Your task to perform on an android device: Go to ESPN.com Image 0: 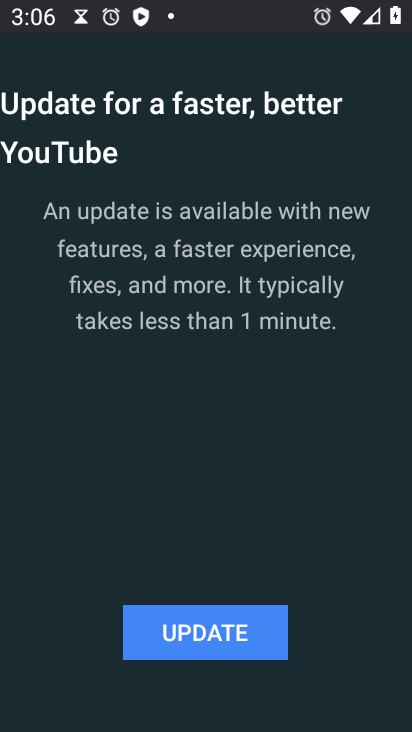
Step 0: press back button
Your task to perform on an android device: Go to ESPN.com Image 1: 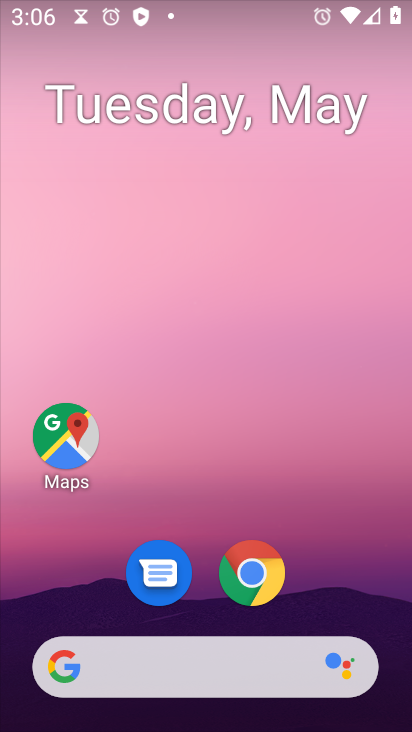
Step 1: drag from (300, 559) to (287, 7)
Your task to perform on an android device: Go to ESPN.com Image 2: 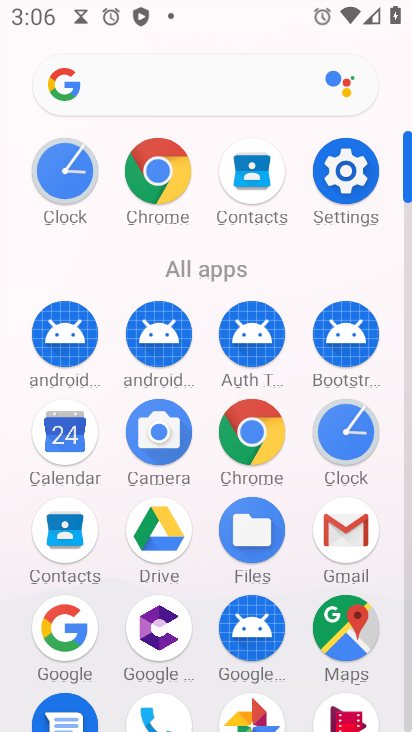
Step 2: click (159, 169)
Your task to perform on an android device: Go to ESPN.com Image 3: 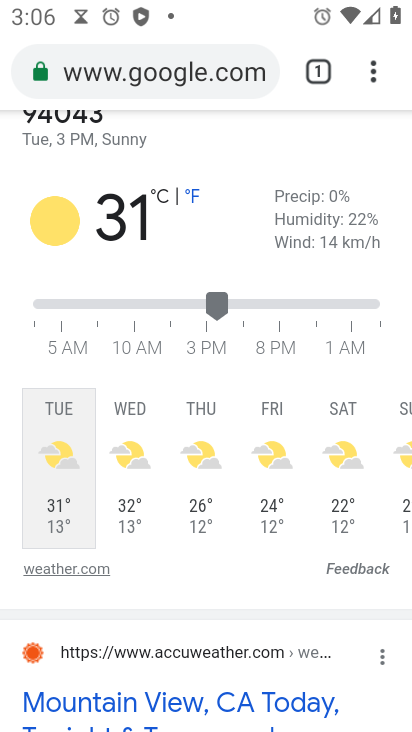
Step 3: drag from (223, 89) to (256, 454)
Your task to perform on an android device: Go to ESPN.com Image 4: 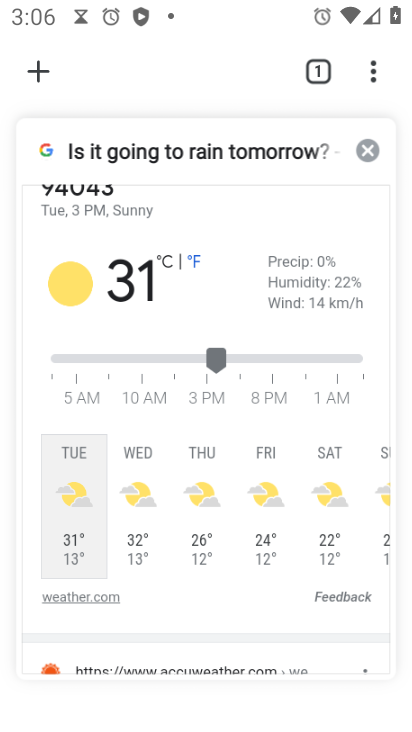
Step 4: click (165, 219)
Your task to perform on an android device: Go to ESPN.com Image 5: 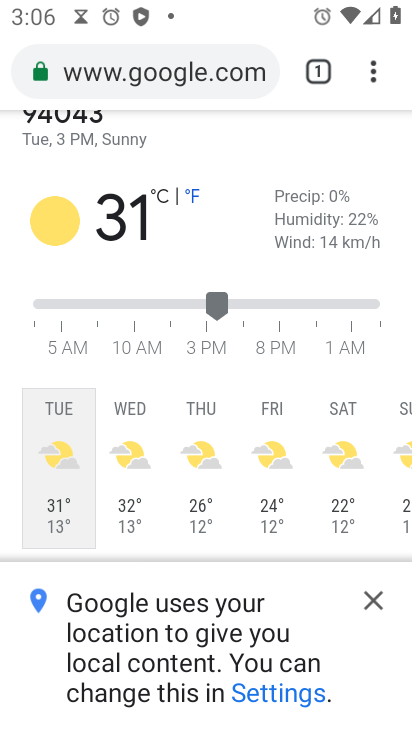
Step 5: click (147, 67)
Your task to perform on an android device: Go to ESPN.com Image 6: 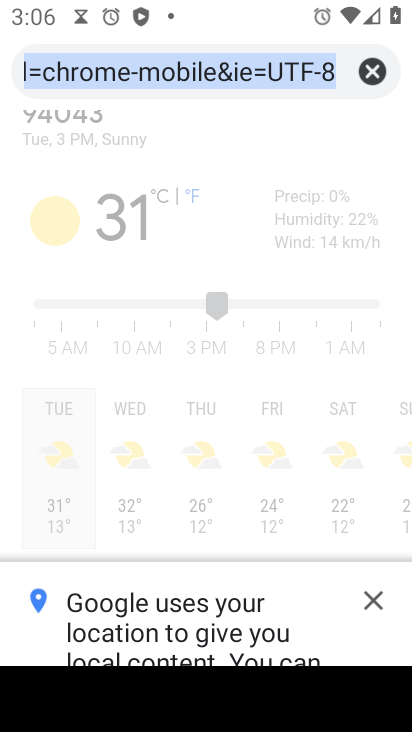
Step 6: click (379, 70)
Your task to perform on an android device: Go to ESPN.com Image 7: 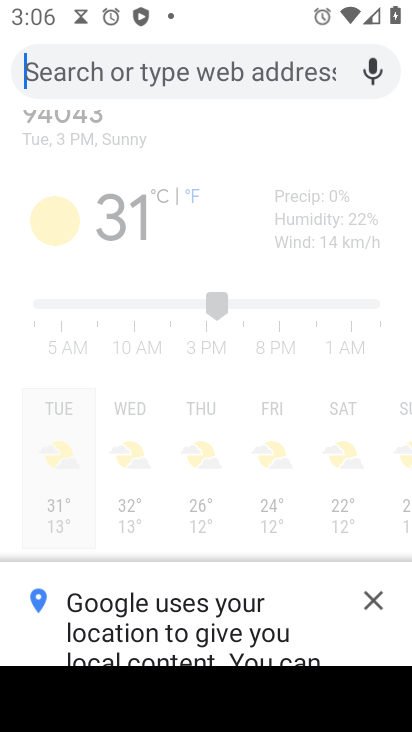
Step 7: type "ESPN.com"
Your task to perform on an android device: Go to ESPN.com Image 8: 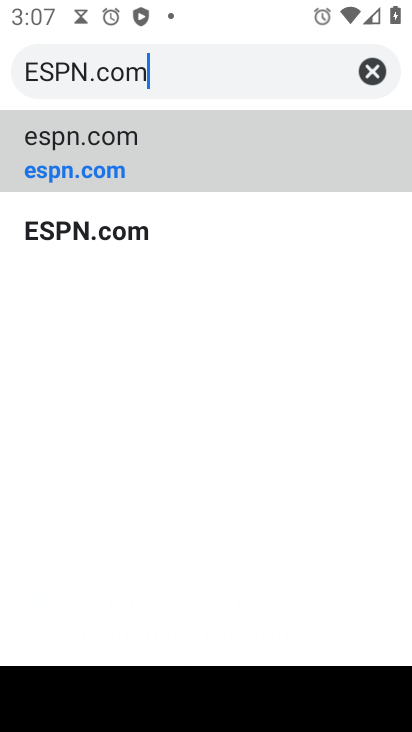
Step 8: type ""
Your task to perform on an android device: Go to ESPN.com Image 9: 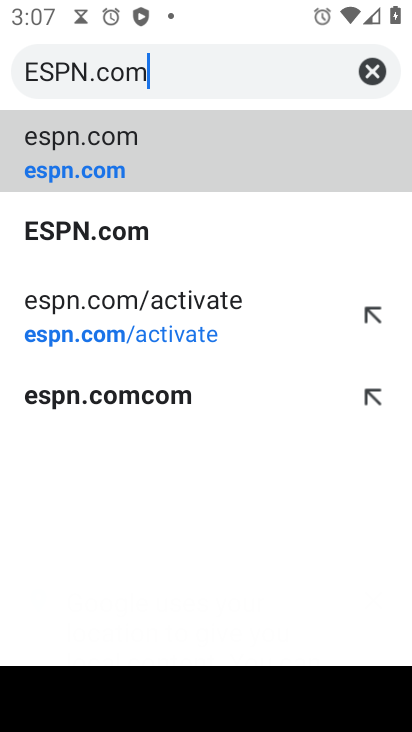
Step 9: click (211, 148)
Your task to perform on an android device: Go to ESPN.com Image 10: 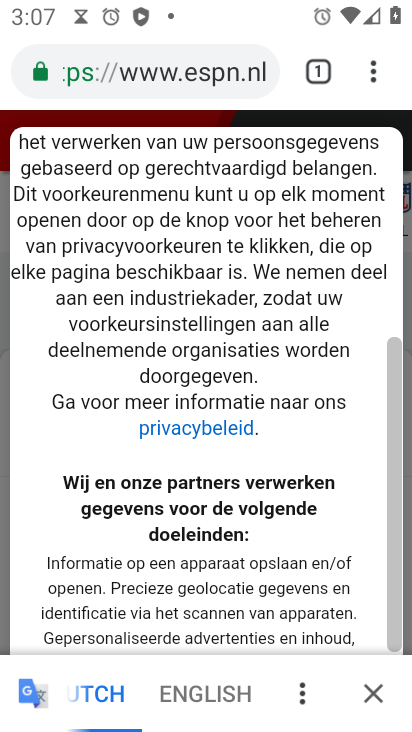
Step 10: drag from (288, 549) to (293, 184)
Your task to perform on an android device: Go to ESPN.com Image 11: 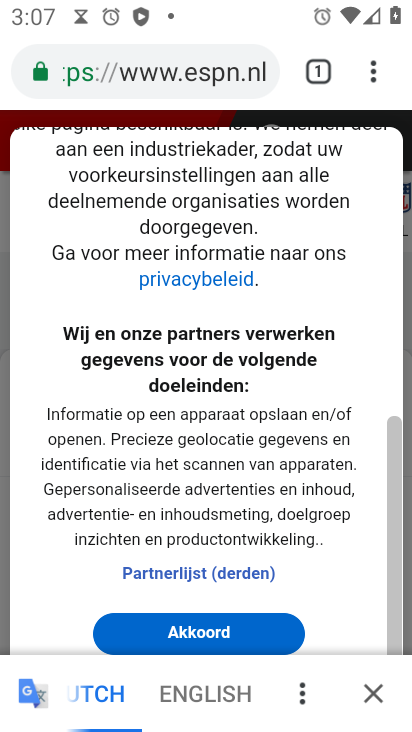
Step 11: click (188, 627)
Your task to perform on an android device: Go to ESPN.com Image 12: 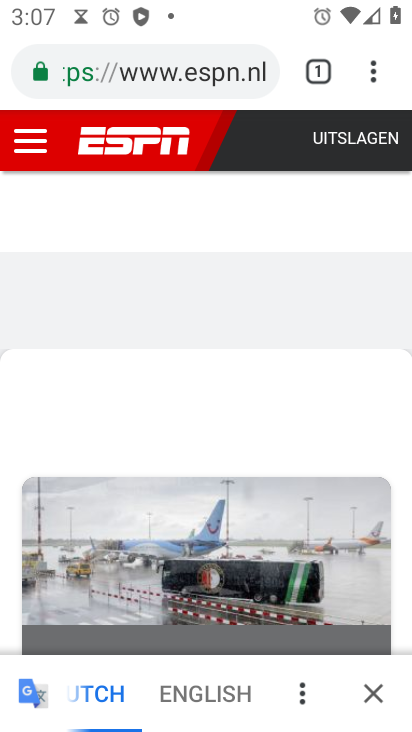
Step 12: task complete